Your task to perform on an android device: open app "DuckDuckGo Privacy Browser" Image 0: 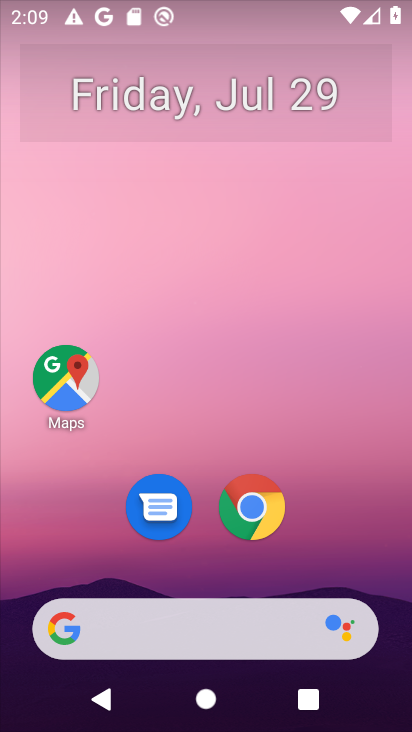
Step 0: drag from (343, 571) to (98, 5)
Your task to perform on an android device: open app "DuckDuckGo Privacy Browser" Image 1: 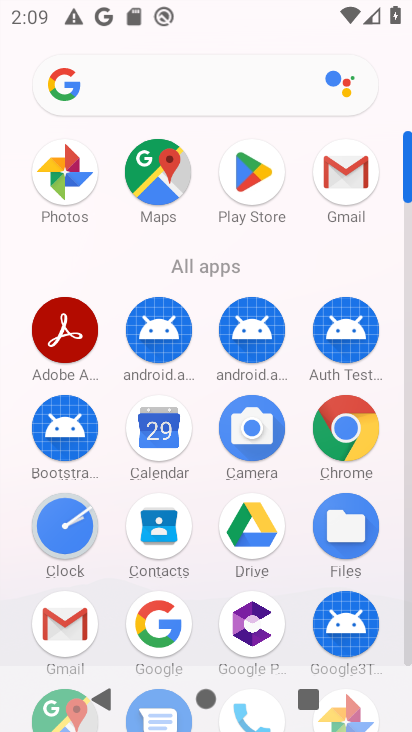
Step 1: click (177, 86)
Your task to perform on an android device: open app "DuckDuckGo Privacy Browser" Image 2: 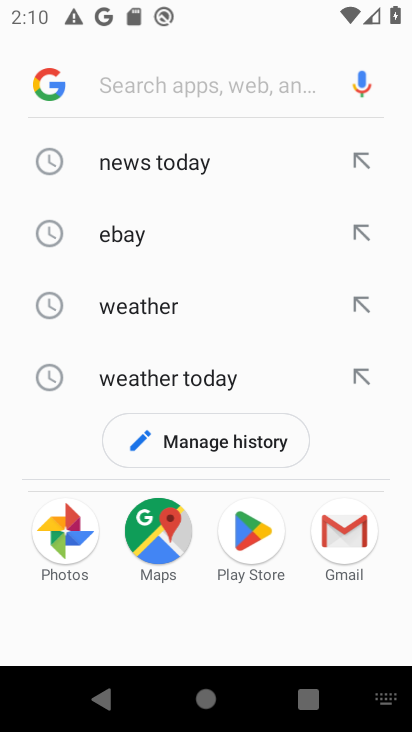
Step 2: type "duck duck go"
Your task to perform on an android device: open app "DuckDuckGo Privacy Browser" Image 3: 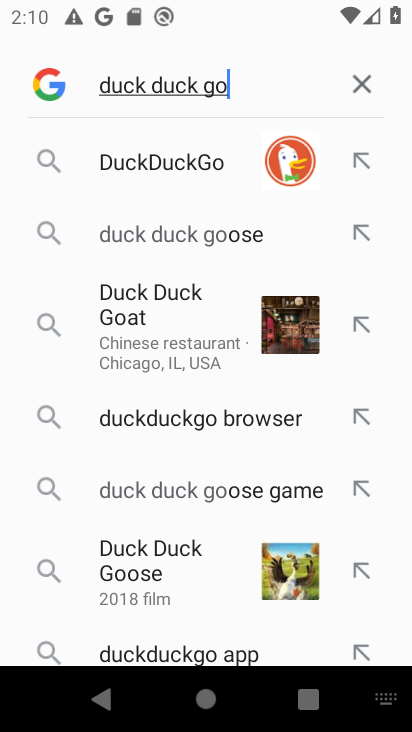
Step 3: click (328, 157)
Your task to perform on an android device: open app "DuckDuckGo Privacy Browser" Image 4: 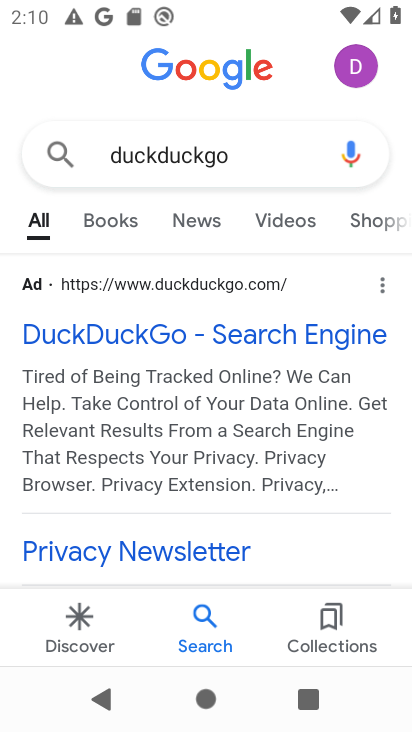
Step 4: drag from (217, 459) to (238, 109)
Your task to perform on an android device: open app "DuckDuckGo Privacy Browser" Image 5: 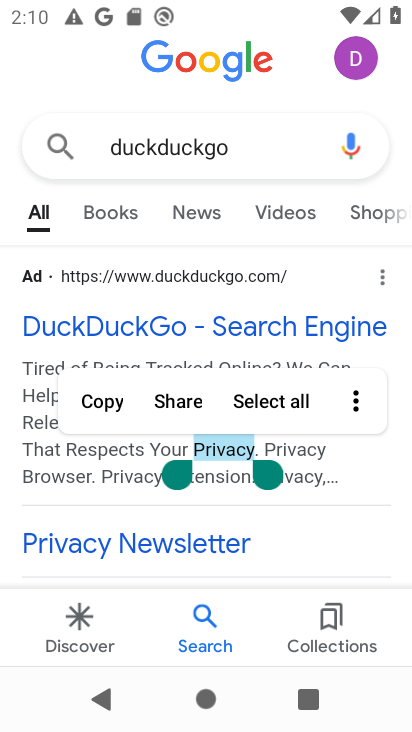
Step 5: click (310, 535)
Your task to perform on an android device: open app "DuckDuckGo Privacy Browser" Image 6: 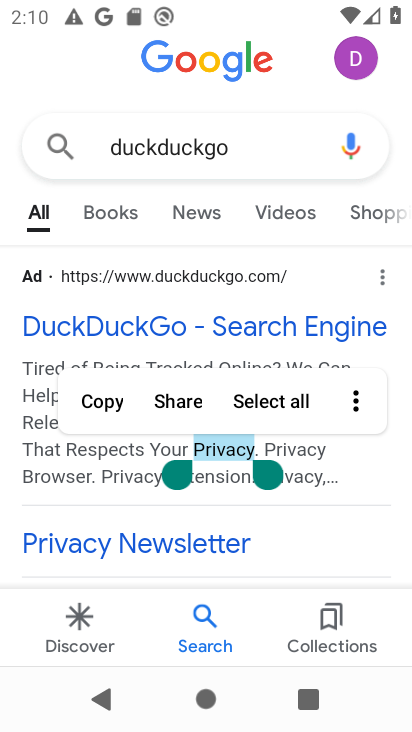
Step 6: drag from (310, 535) to (271, 204)
Your task to perform on an android device: open app "DuckDuckGo Privacy Browser" Image 7: 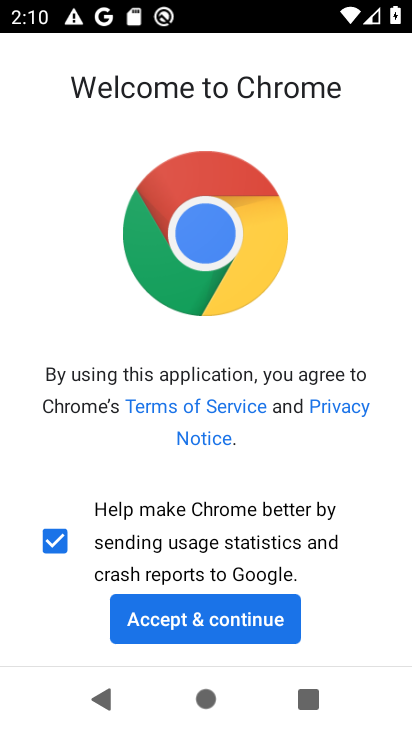
Step 7: click (241, 601)
Your task to perform on an android device: open app "DuckDuckGo Privacy Browser" Image 8: 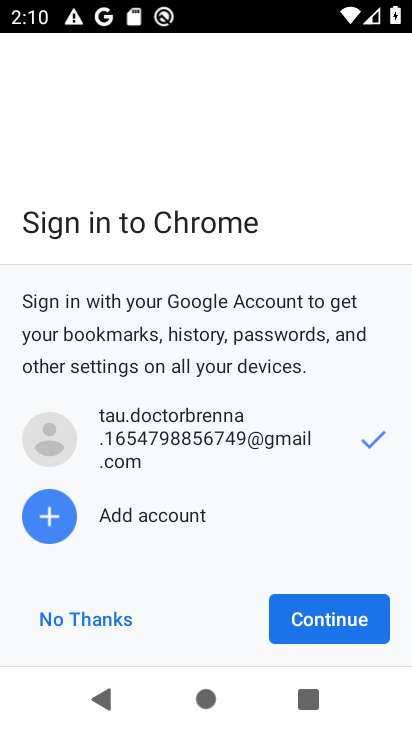
Step 8: click (337, 623)
Your task to perform on an android device: open app "DuckDuckGo Privacy Browser" Image 9: 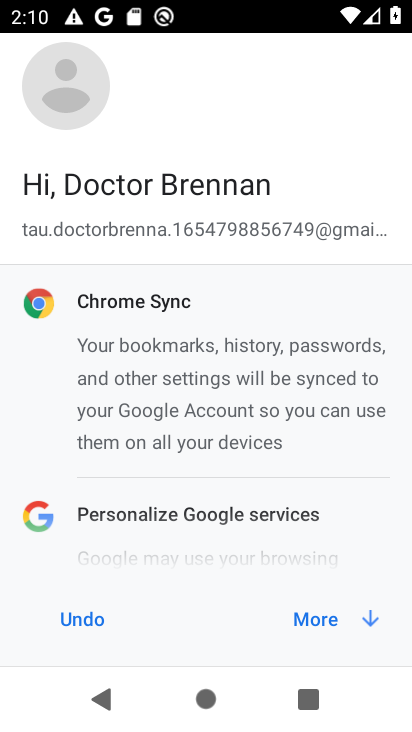
Step 9: click (337, 621)
Your task to perform on an android device: open app "DuckDuckGo Privacy Browser" Image 10: 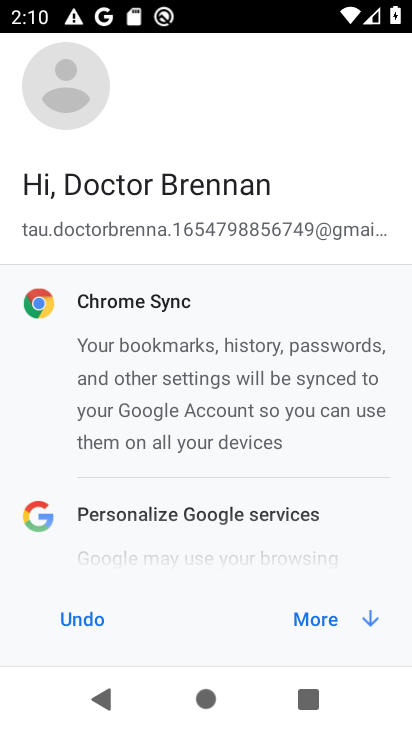
Step 10: click (337, 621)
Your task to perform on an android device: open app "DuckDuckGo Privacy Browser" Image 11: 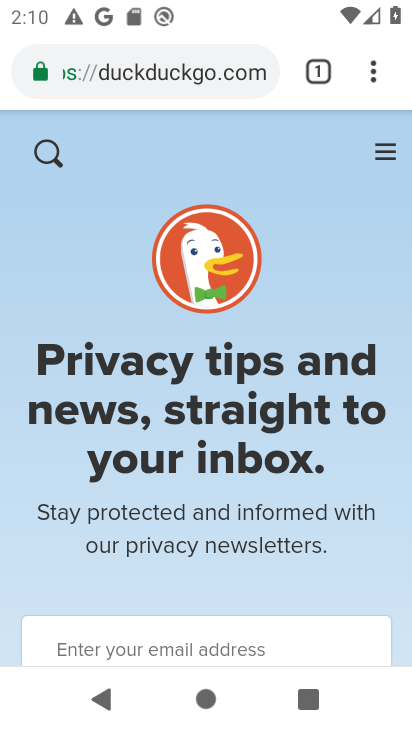
Step 11: task complete